Your task to perform on an android device: install app "Microsoft Authenticator" Image 0: 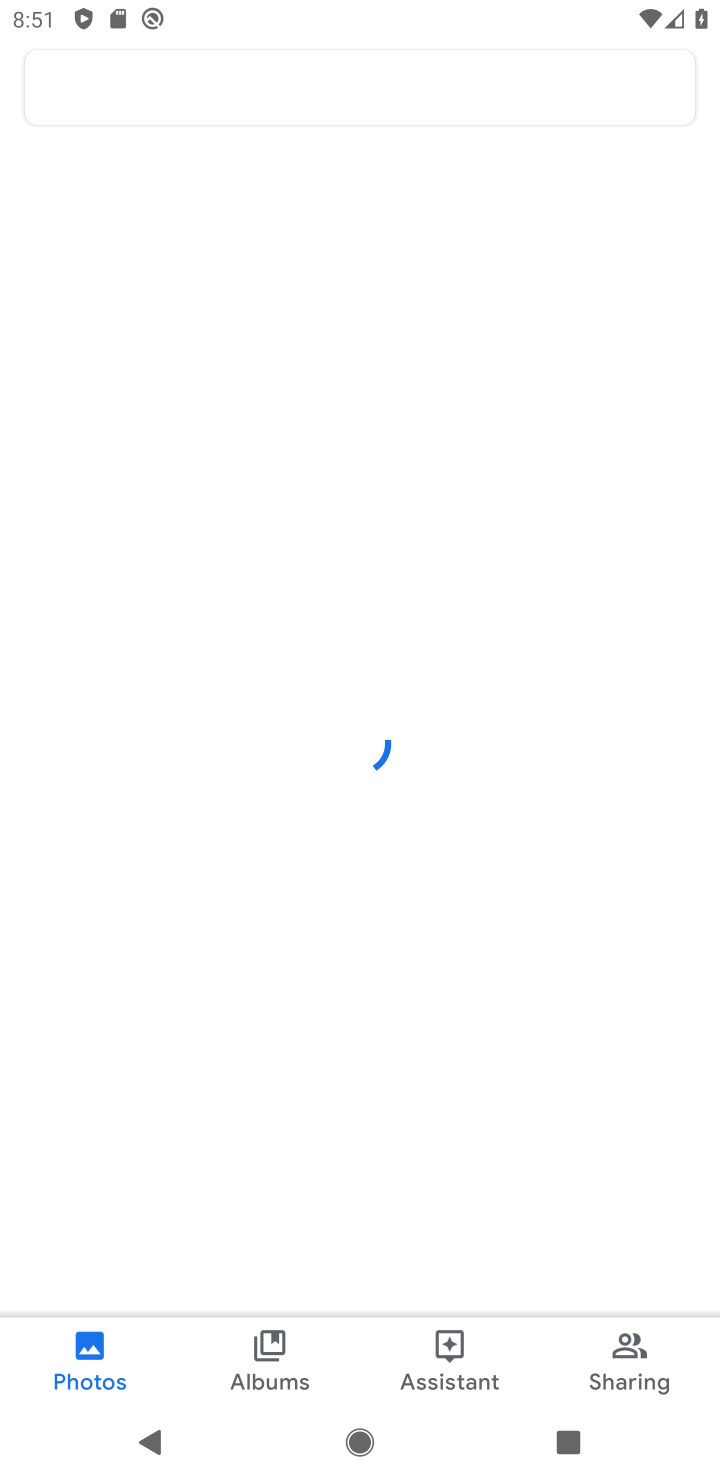
Step 0: press home button
Your task to perform on an android device: install app "Microsoft Authenticator" Image 1: 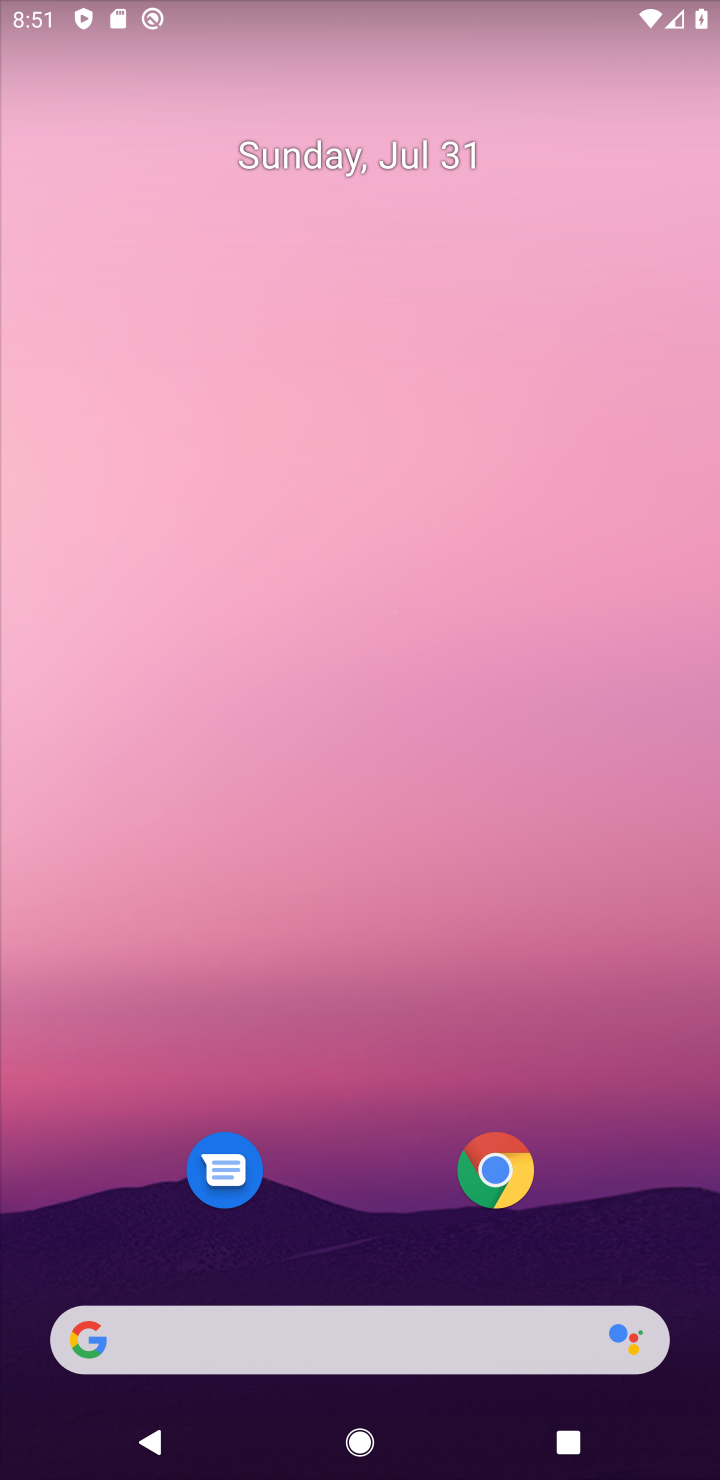
Step 1: drag from (651, 1065) to (396, 159)
Your task to perform on an android device: install app "Microsoft Authenticator" Image 2: 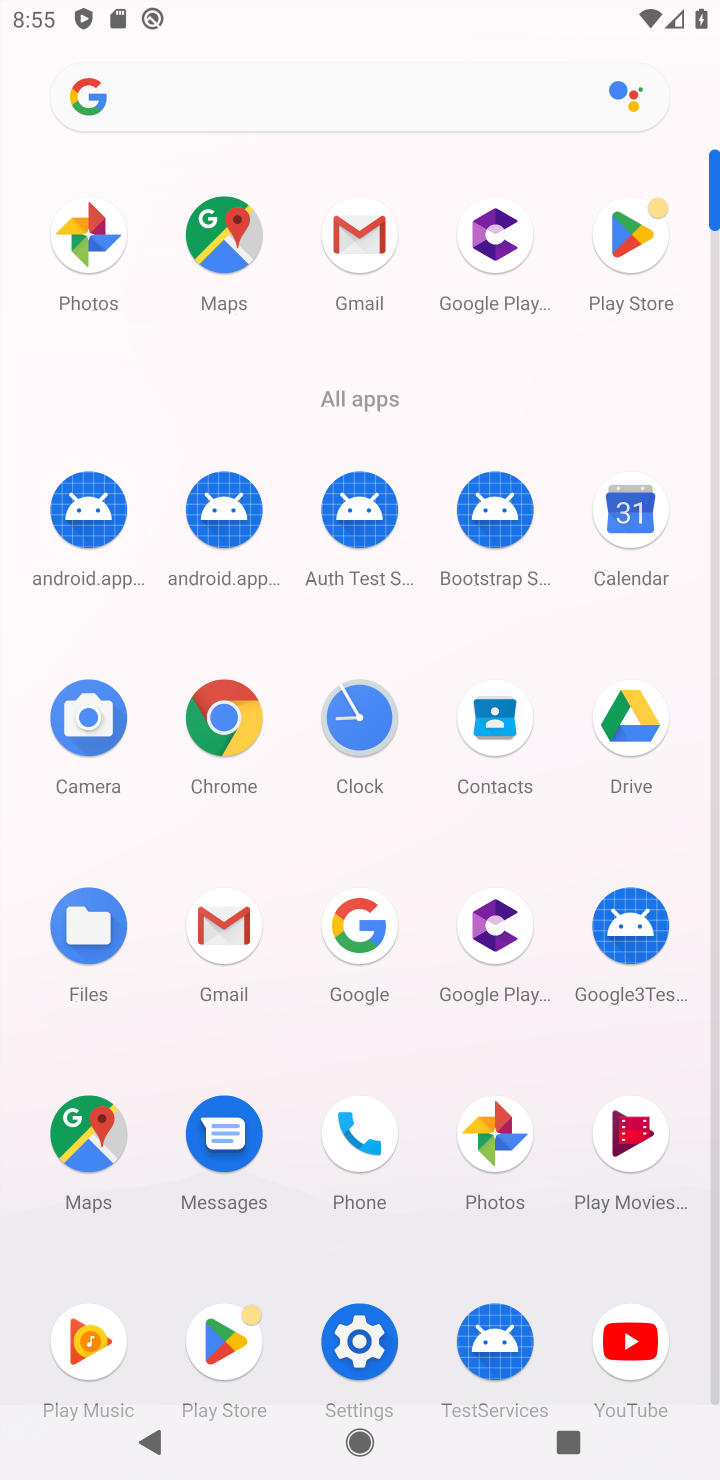
Step 2: click (614, 249)
Your task to perform on an android device: install app "Microsoft Authenticator" Image 3: 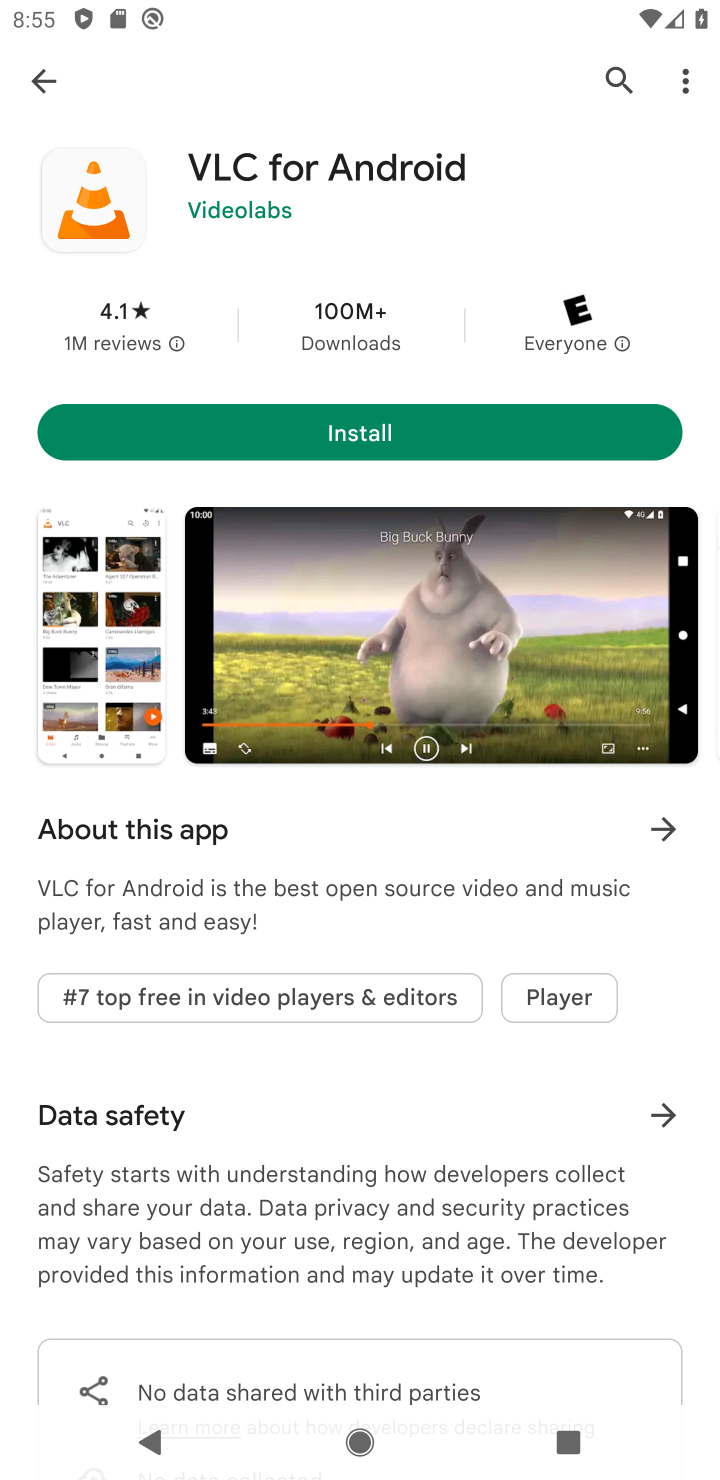
Step 3: press back button
Your task to perform on an android device: install app "Microsoft Authenticator" Image 4: 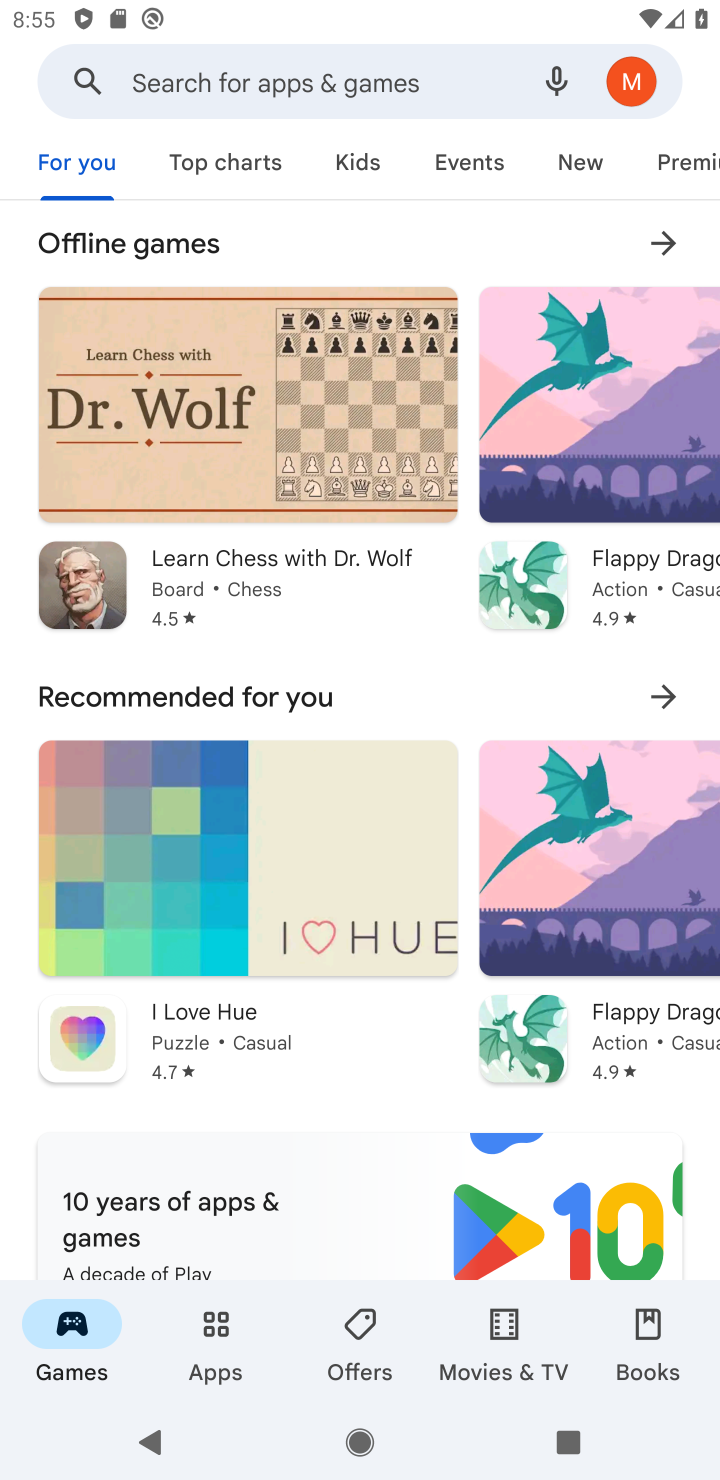
Step 4: click (244, 89)
Your task to perform on an android device: install app "Microsoft Authenticator" Image 5: 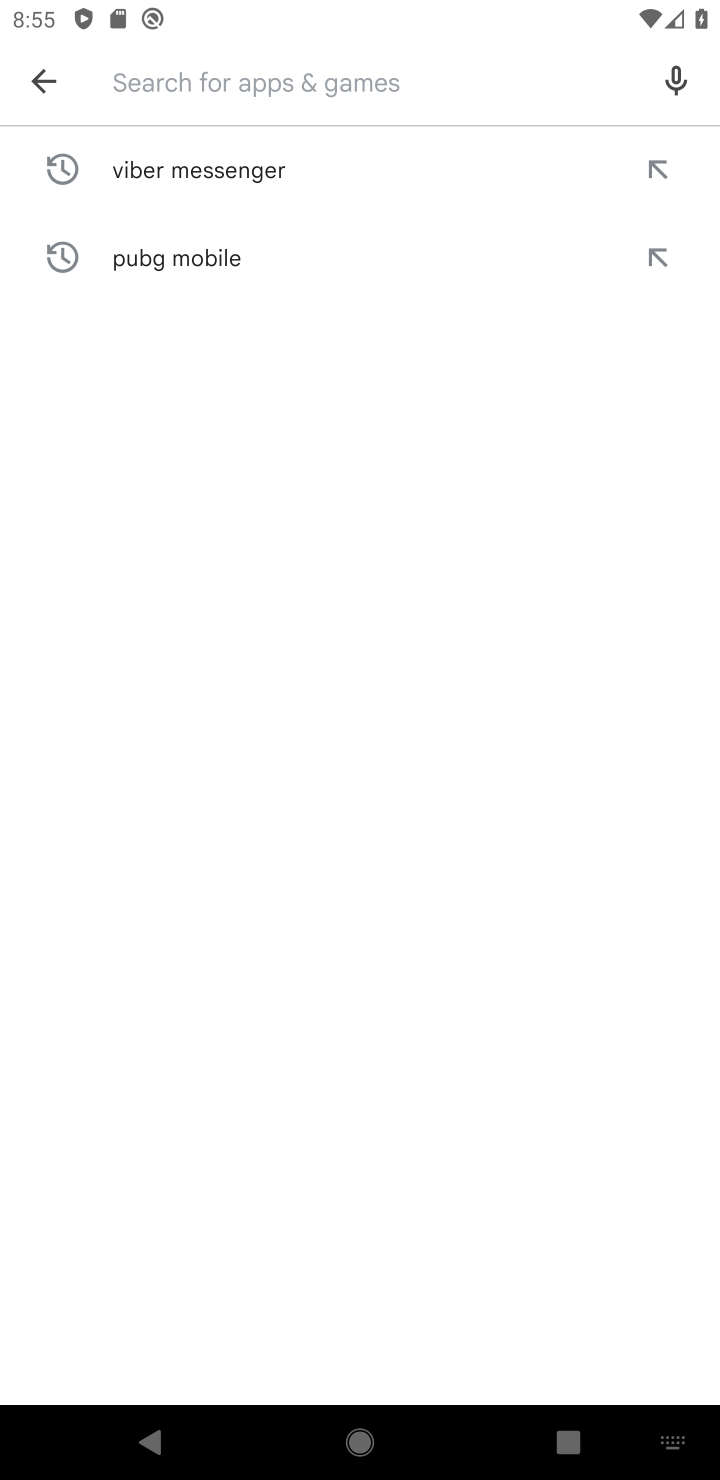
Step 5: type "Microsoft Authenticator"
Your task to perform on an android device: install app "Microsoft Authenticator" Image 6: 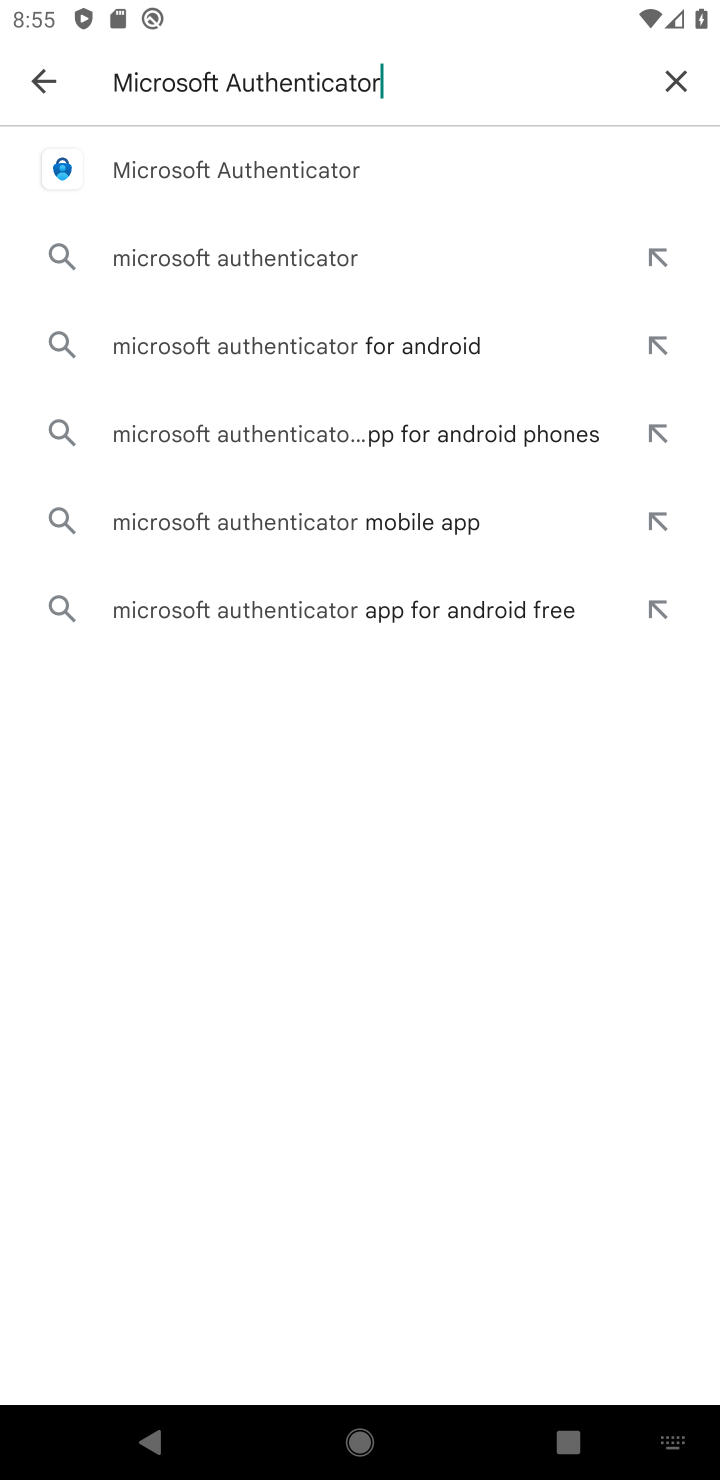
Step 6: click (234, 180)
Your task to perform on an android device: install app "Microsoft Authenticator" Image 7: 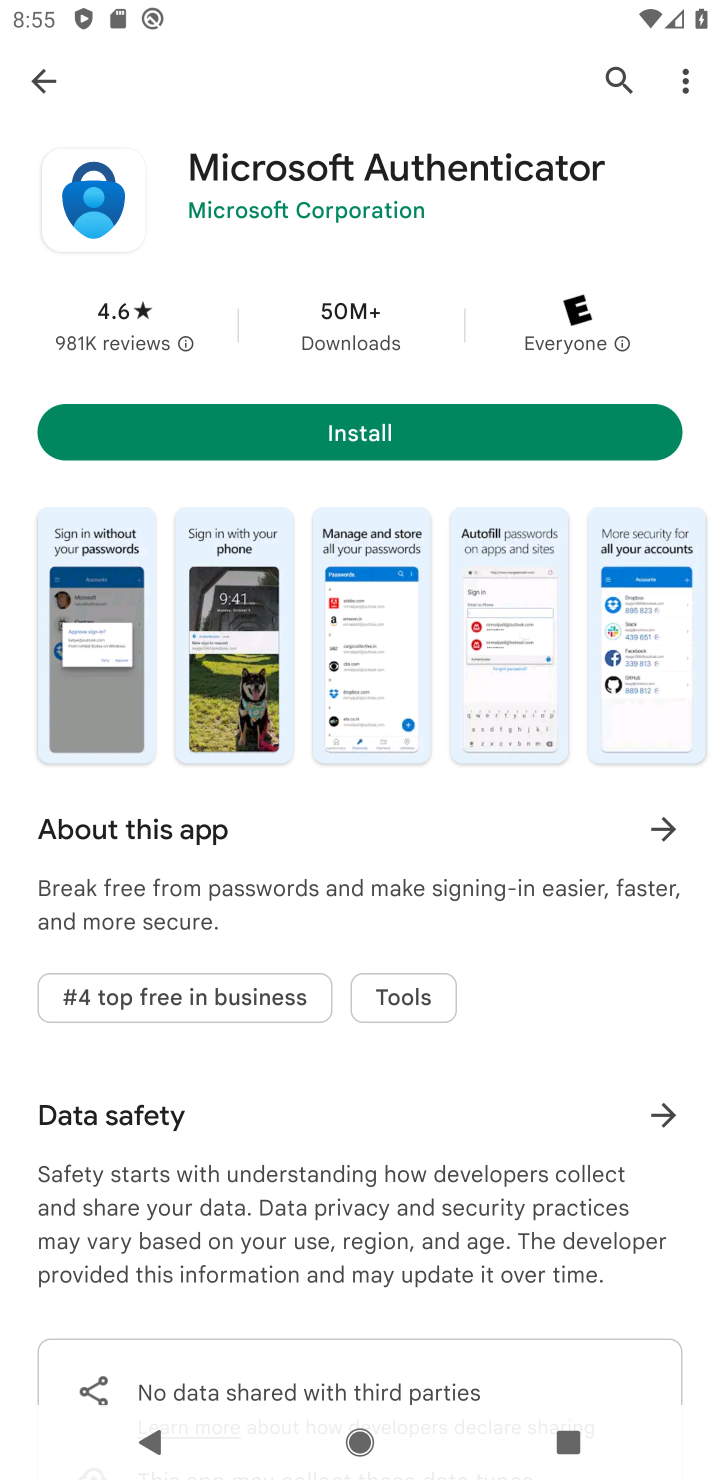
Step 7: click (316, 424)
Your task to perform on an android device: install app "Microsoft Authenticator" Image 8: 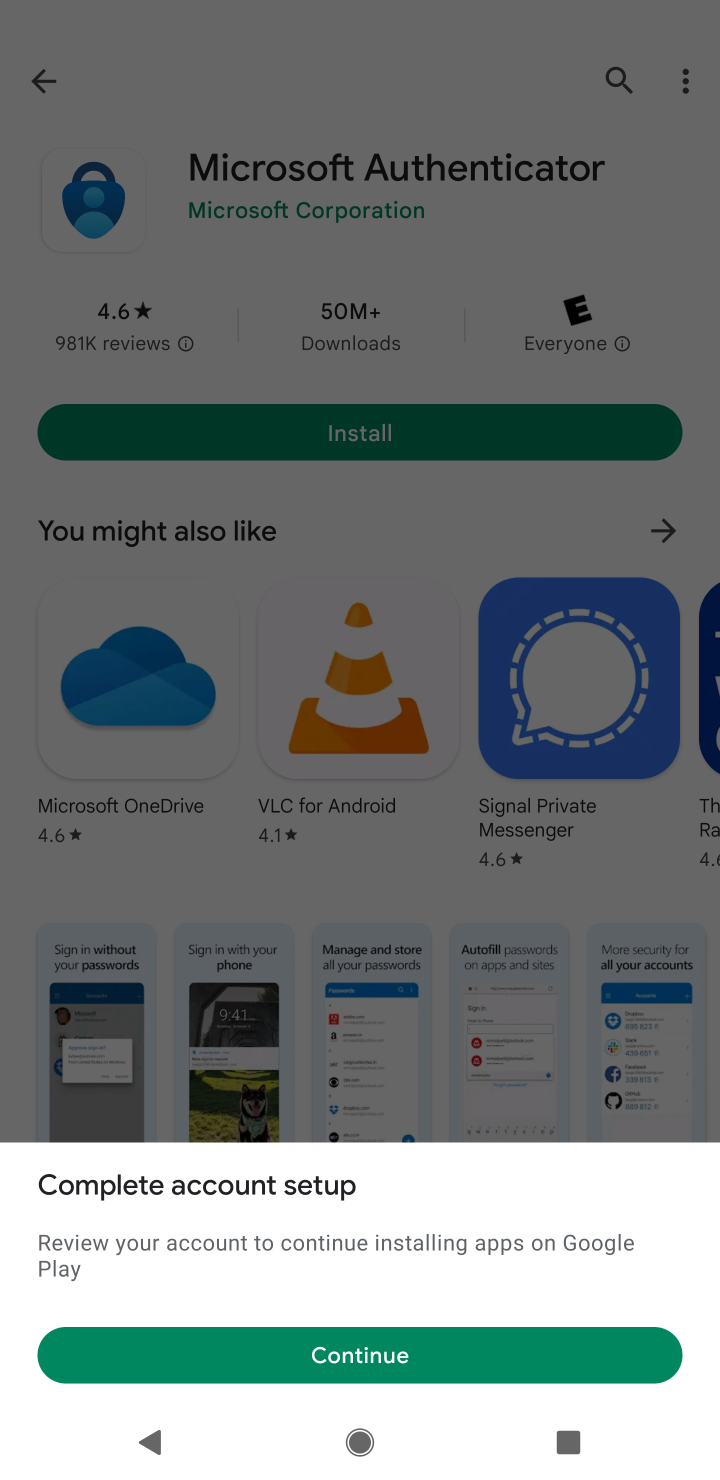
Step 8: click (196, 1340)
Your task to perform on an android device: install app "Microsoft Authenticator" Image 9: 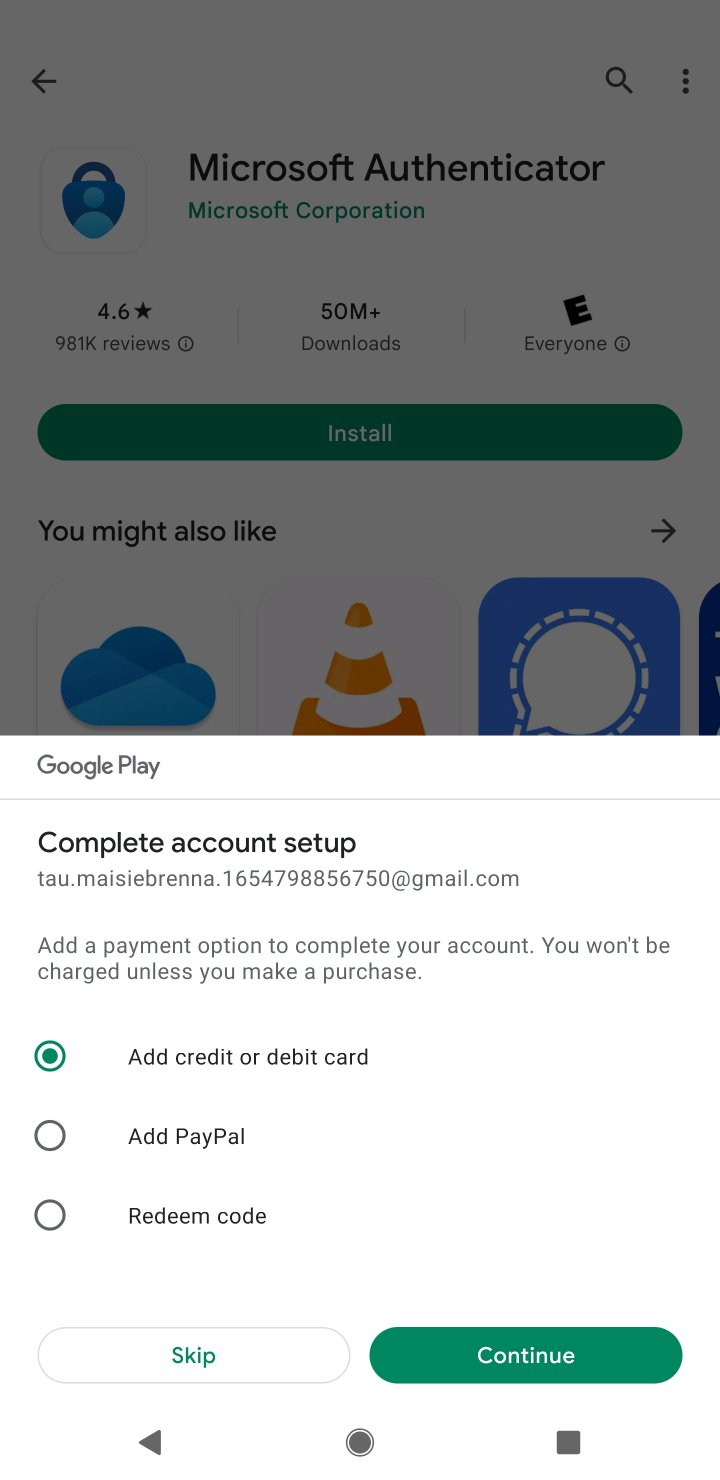
Step 9: click (211, 1345)
Your task to perform on an android device: install app "Microsoft Authenticator" Image 10: 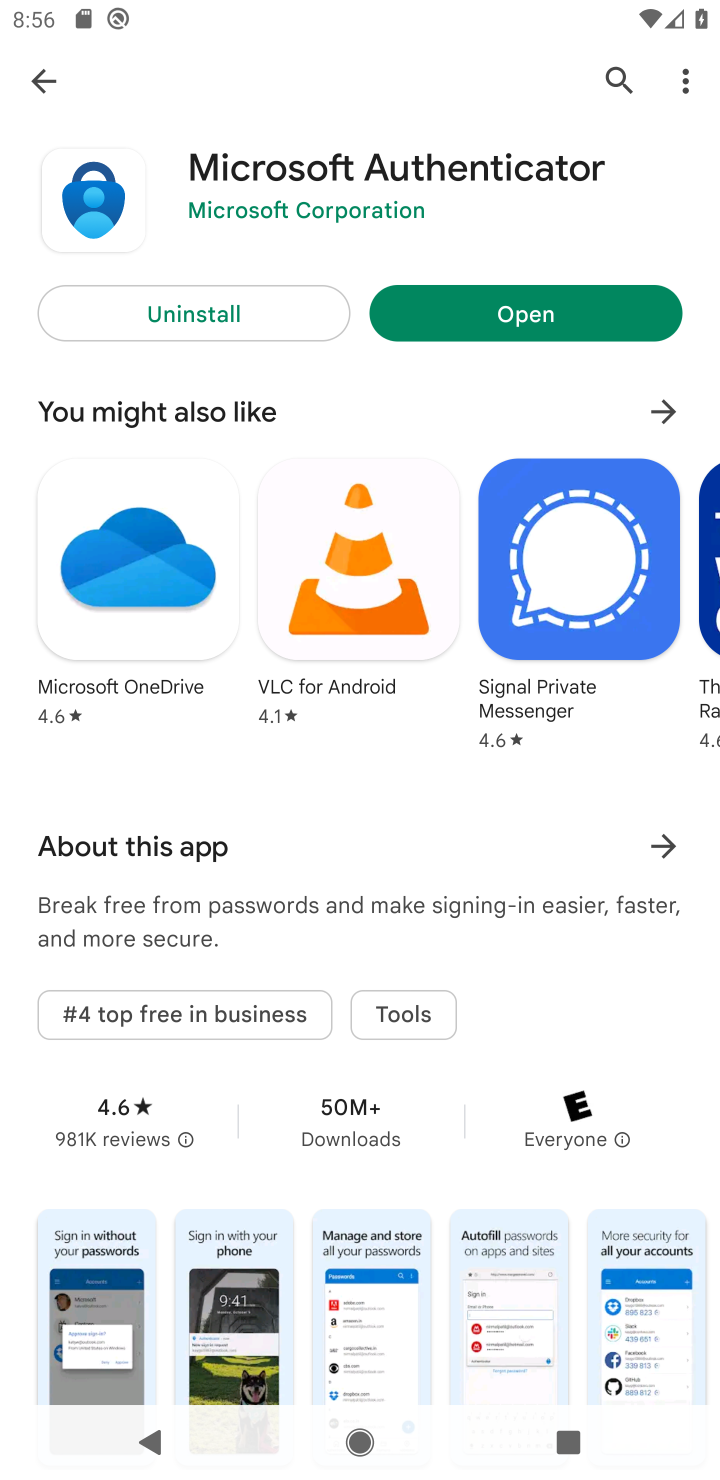
Step 10: task complete